Your task to perform on an android device: turn notification dots on Image 0: 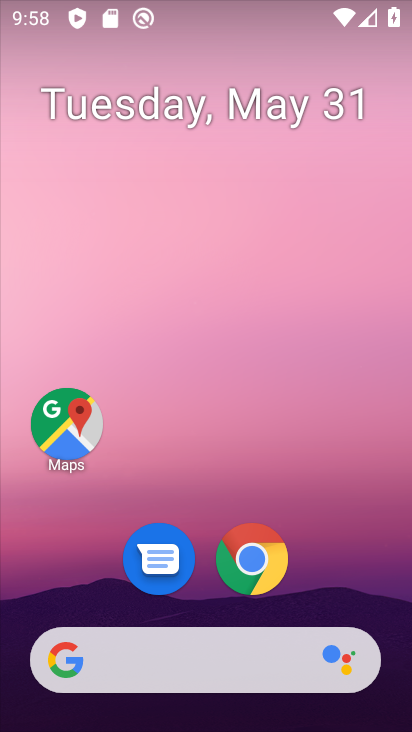
Step 0: drag from (74, 618) to (182, 99)
Your task to perform on an android device: turn notification dots on Image 1: 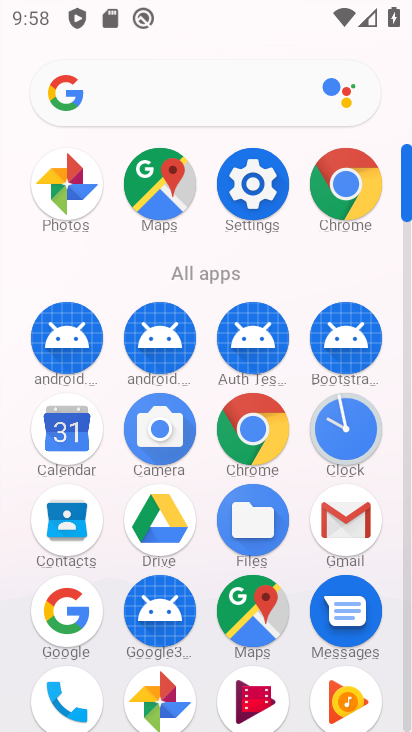
Step 1: drag from (128, 654) to (202, 305)
Your task to perform on an android device: turn notification dots on Image 2: 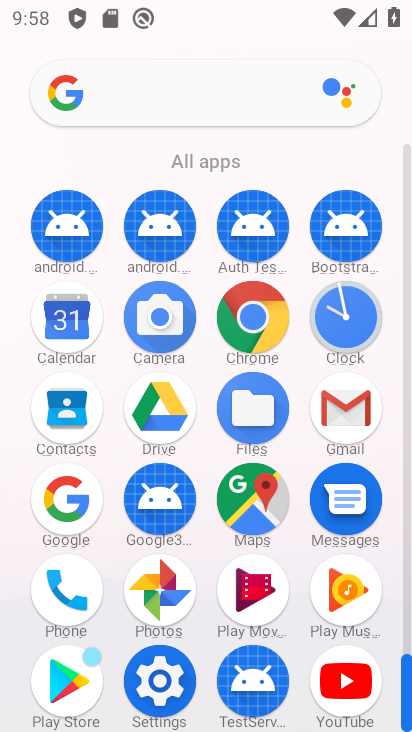
Step 2: click (167, 661)
Your task to perform on an android device: turn notification dots on Image 3: 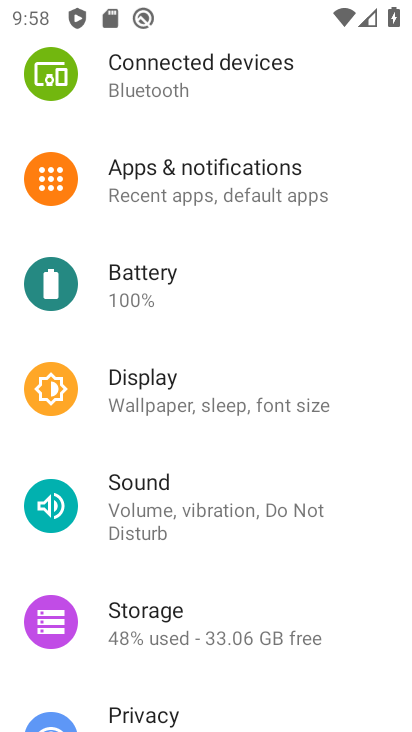
Step 3: click (220, 215)
Your task to perform on an android device: turn notification dots on Image 4: 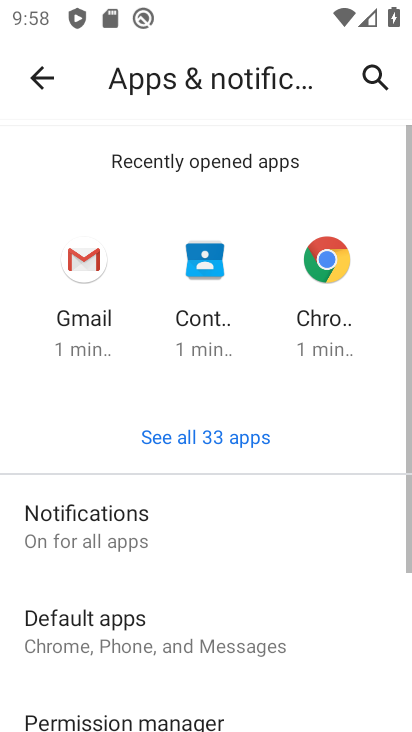
Step 4: click (166, 515)
Your task to perform on an android device: turn notification dots on Image 5: 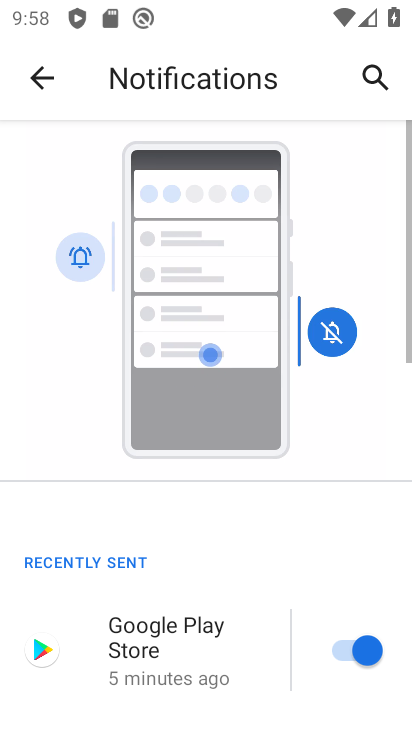
Step 5: drag from (207, 607) to (341, 64)
Your task to perform on an android device: turn notification dots on Image 6: 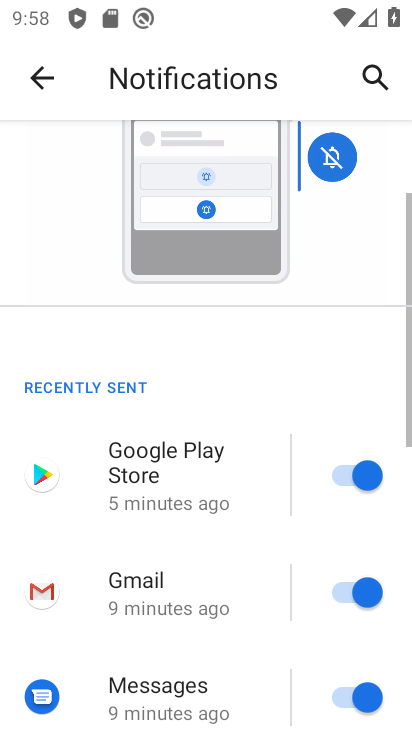
Step 6: drag from (204, 686) to (330, 115)
Your task to perform on an android device: turn notification dots on Image 7: 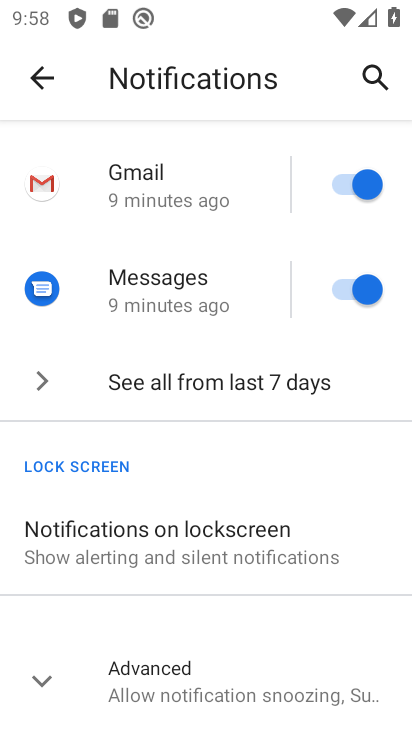
Step 7: click (153, 697)
Your task to perform on an android device: turn notification dots on Image 8: 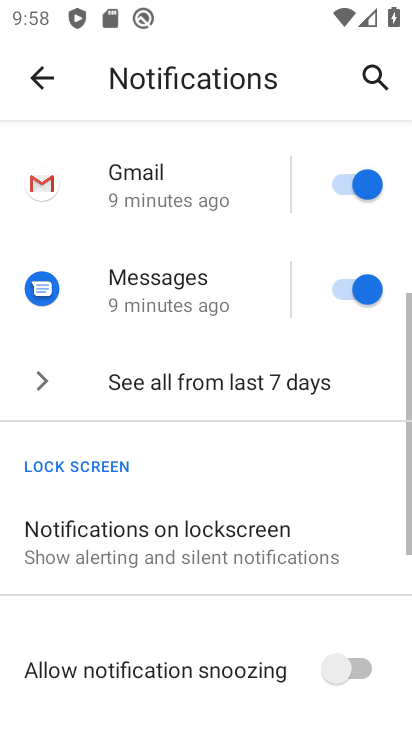
Step 8: task complete